Your task to perform on an android device: Search for pizza restaurants on Maps Image 0: 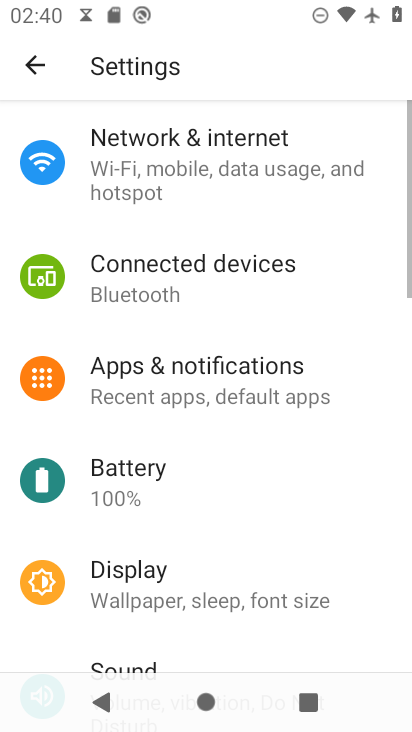
Step 0: press home button
Your task to perform on an android device: Search for pizza restaurants on Maps Image 1: 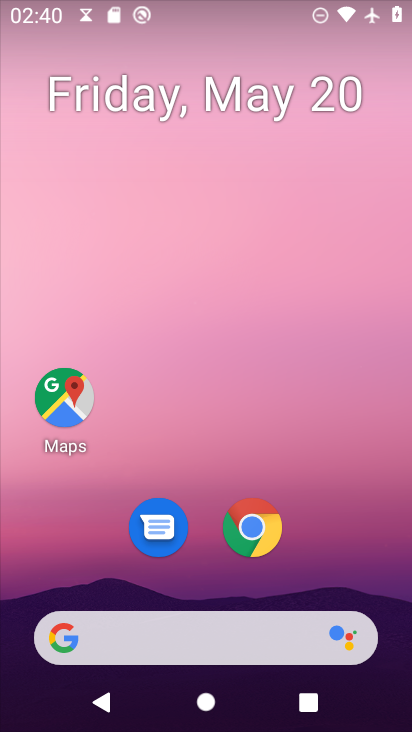
Step 1: click (63, 400)
Your task to perform on an android device: Search for pizza restaurants on Maps Image 2: 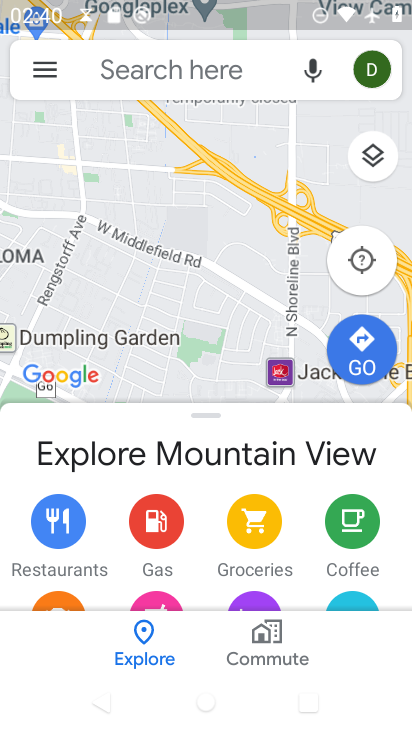
Step 2: click (189, 74)
Your task to perform on an android device: Search for pizza restaurants on Maps Image 3: 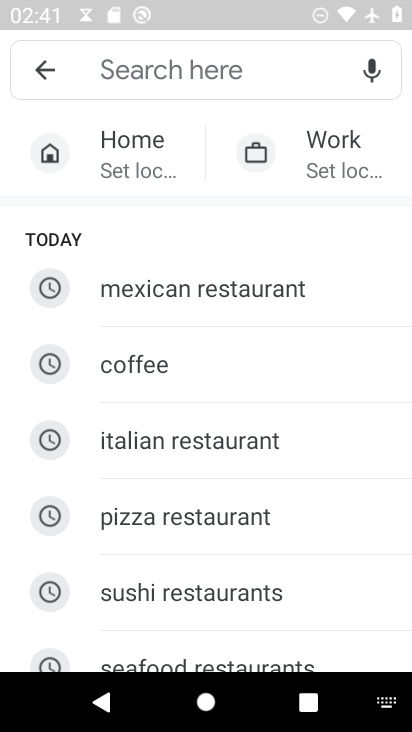
Step 3: click (209, 521)
Your task to perform on an android device: Search for pizza restaurants on Maps Image 4: 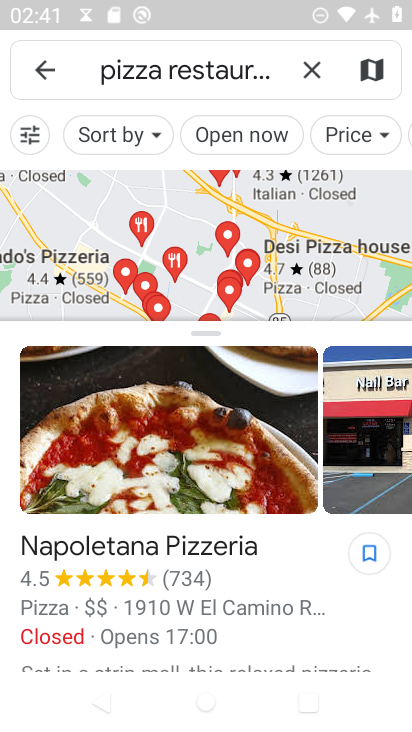
Step 4: task complete